Your task to perform on an android device: Go to Reddit.com Image 0: 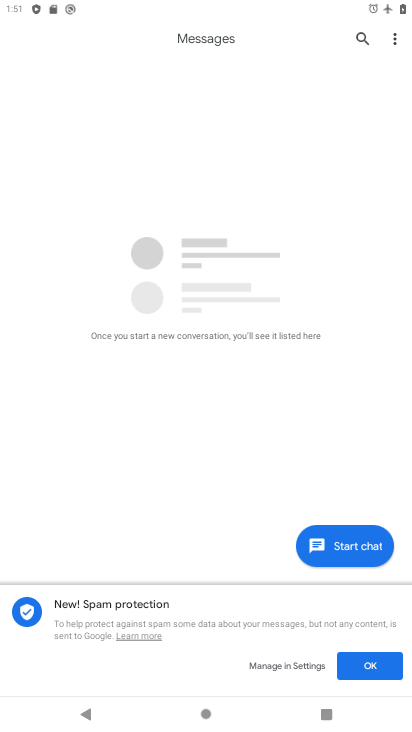
Step 0: press home button
Your task to perform on an android device: Go to Reddit.com Image 1: 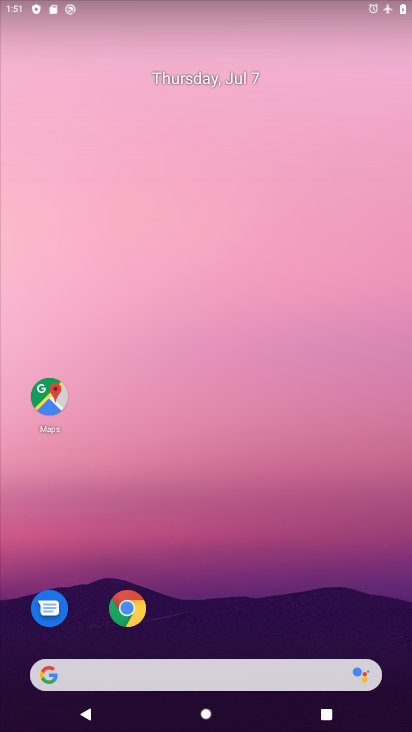
Step 1: click (127, 609)
Your task to perform on an android device: Go to Reddit.com Image 2: 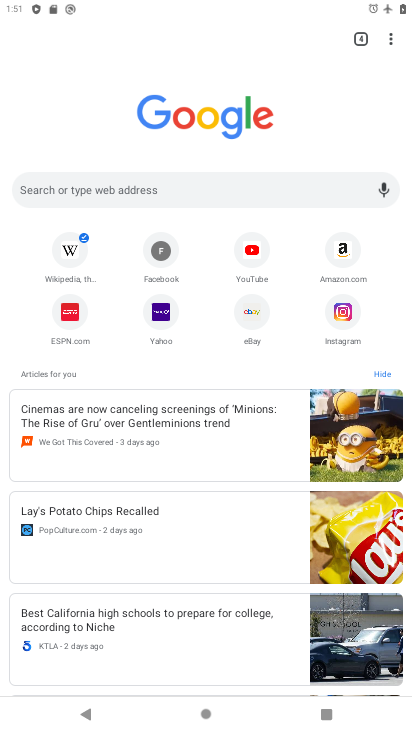
Step 2: click (391, 40)
Your task to perform on an android device: Go to Reddit.com Image 3: 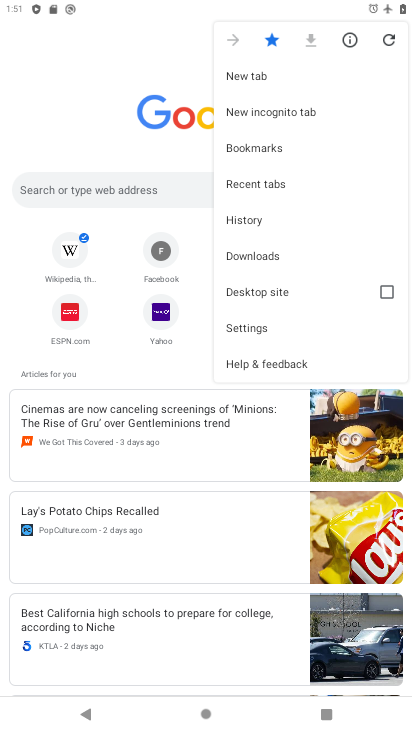
Step 3: click (165, 186)
Your task to perform on an android device: Go to Reddit.com Image 4: 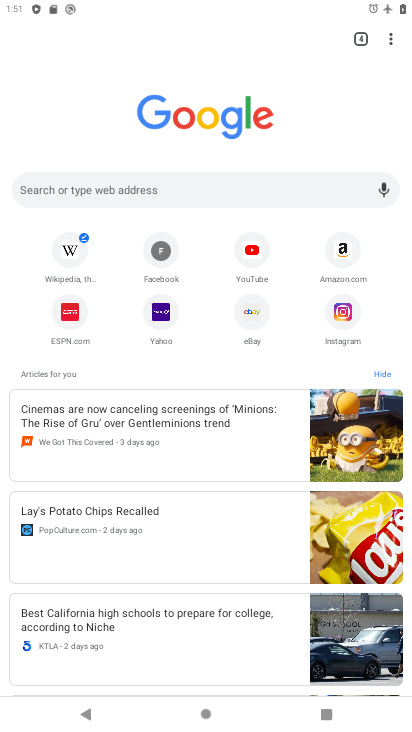
Step 4: click (152, 187)
Your task to perform on an android device: Go to Reddit.com Image 5: 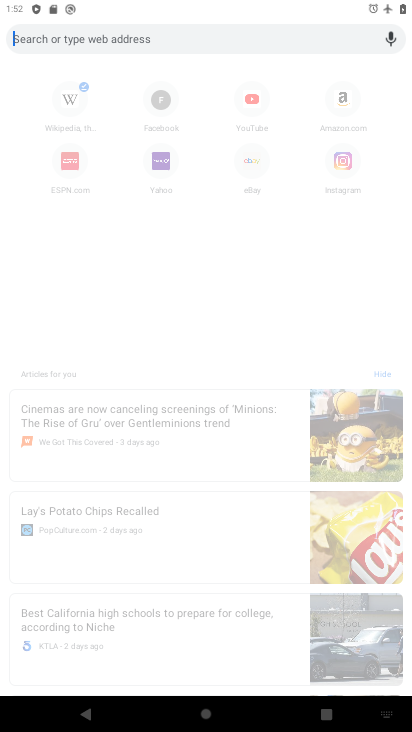
Step 5: type "Reddit.com"
Your task to perform on an android device: Go to Reddit.com Image 6: 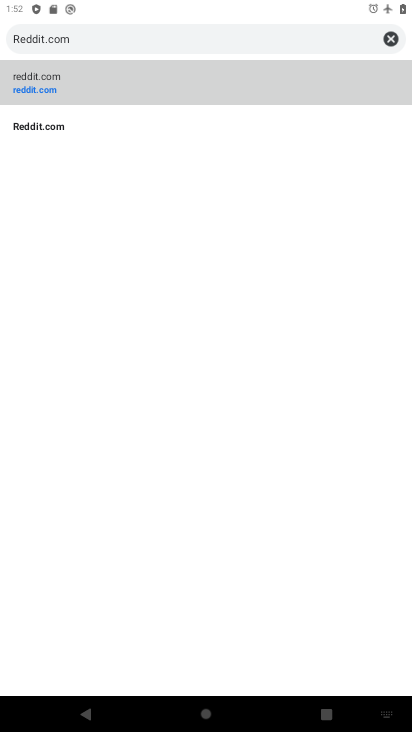
Step 6: click (24, 73)
Your task to perform on an android device: Go to Reddit.com Image 7: 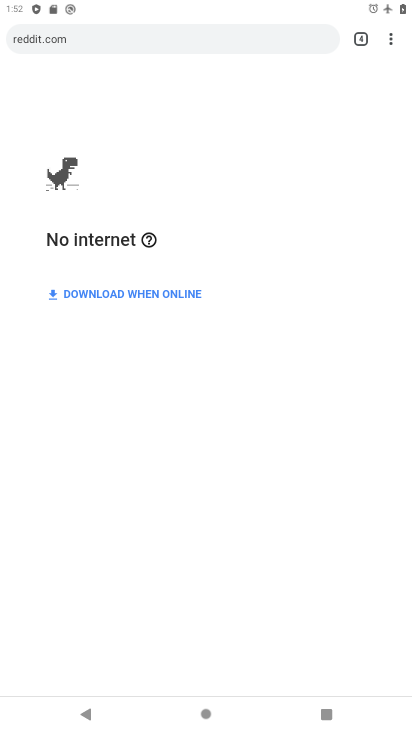
Step 7: task complete